Your task to perform on an android device: open the mobile data screen to see how much data has been used Image 0: 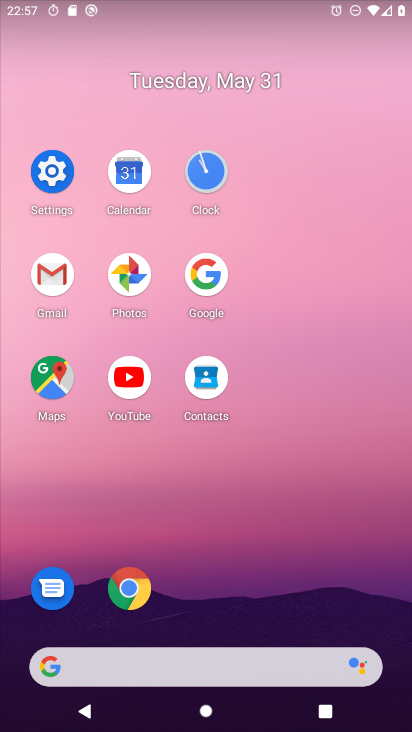
Step 0: click (63, 181)
Your task to perform on an android device: open the mobile data screen to see how much data has been used Image 1: 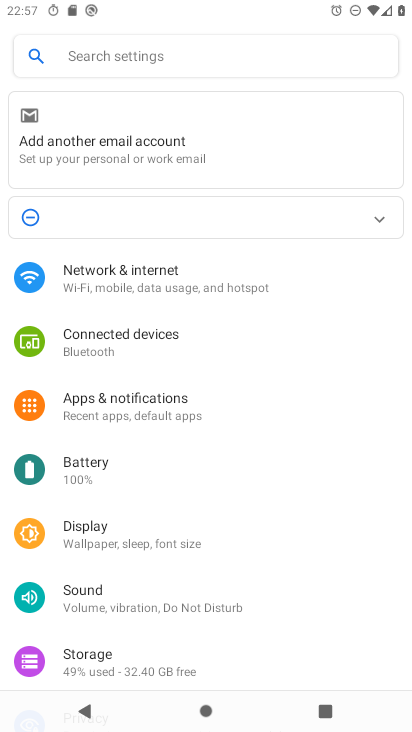
Step 1: click (223, 279)
Your task to perform on an android device: open the mobile data screen to see how much data has been used Image 2: 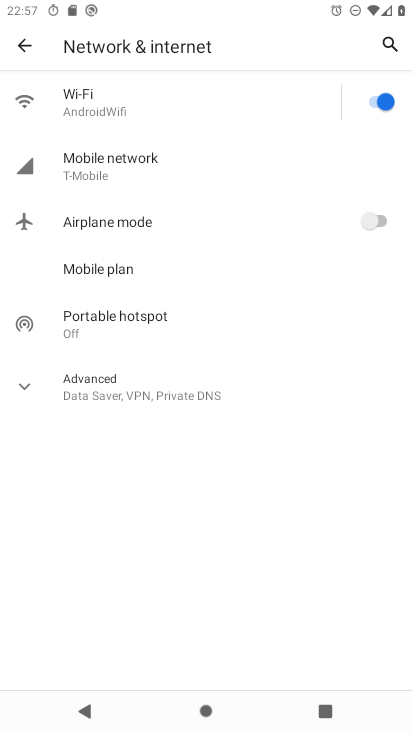
Step 2: click (156, 181)
Your task to perform on an android device: open the mobile data screen to see how much data has been used Image 3: 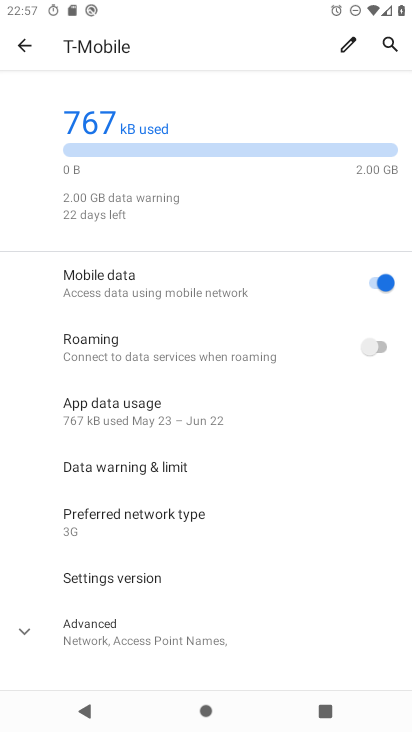
Step 3: task complete